Your task to perform on an android device: Do I have any events tomorrow? Image 0: 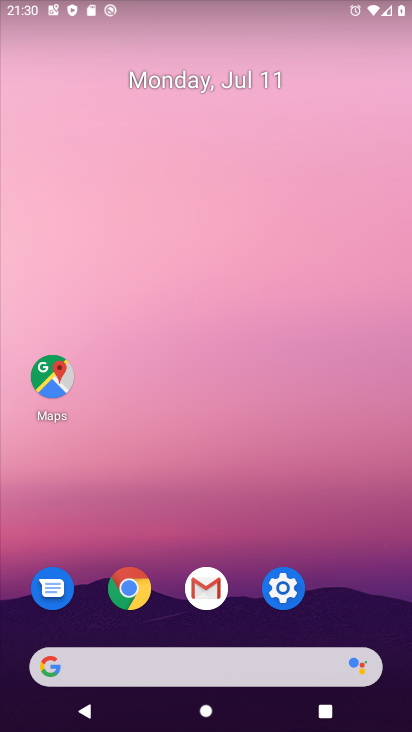
Step 0: click (169, 667)
Your task to perform on an android device: Do I have any events tomorrow? Image 1: 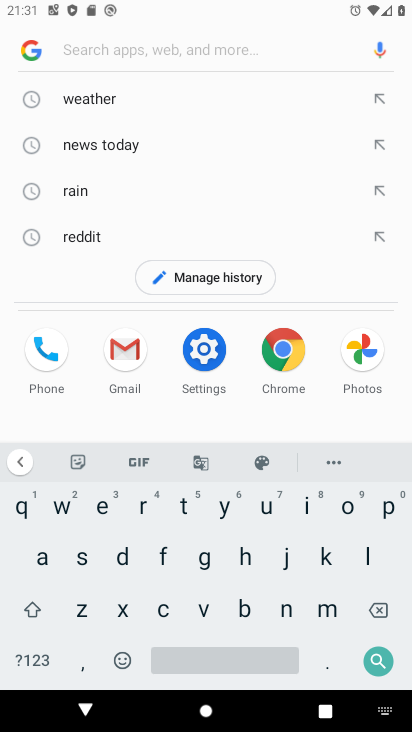
Step 1: press home button
Your task to perform on an android device: Do I have any events tomorrow? Image 2: 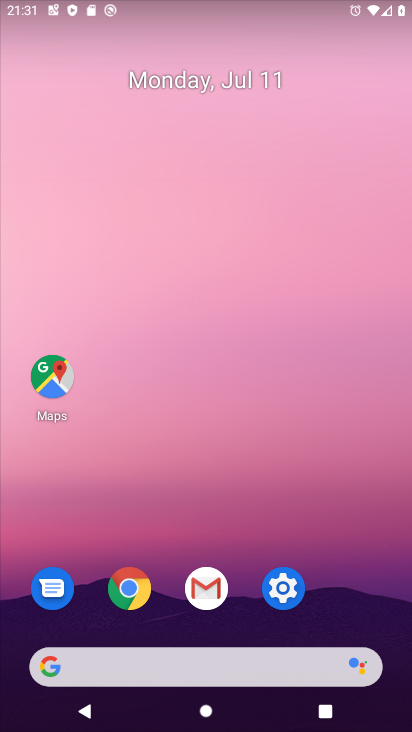
Step 2: drag from (246, 675) to (172, 99)
Your task to perform on an android device: Do I have any events tomorrow? Image 3: 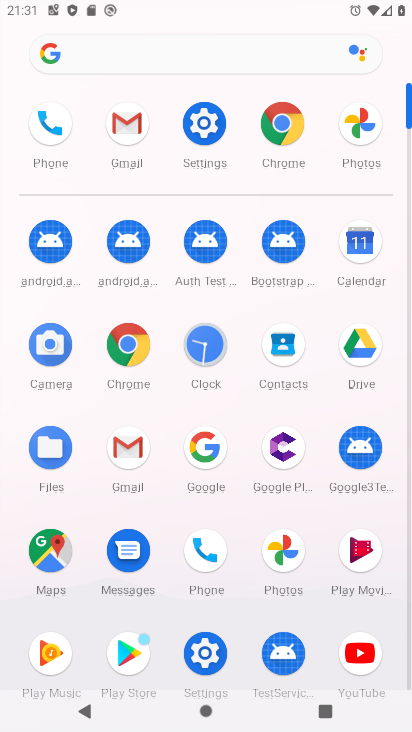
Step 3: click (363, 256)
Your task to perform on an android device: Do I have any events tomorrow? Image 4: 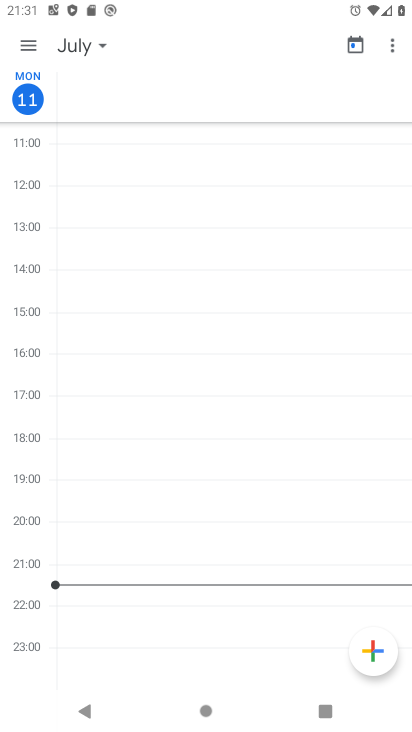
Step 4: click (24, 37)
Your task to perform on an android device: Do I have any events tomorrow? Image 5: 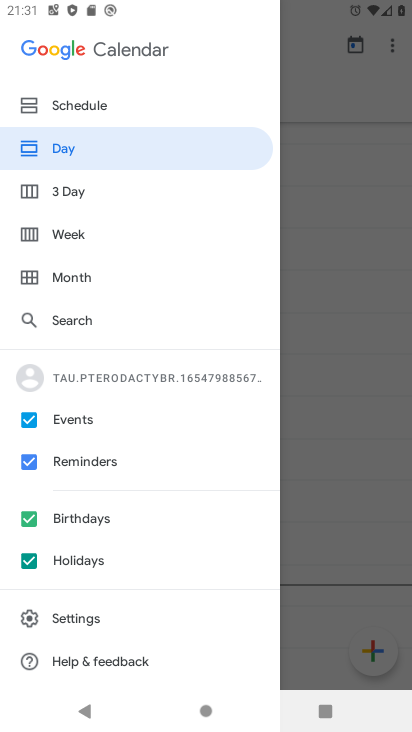
Step 5: click (93, 108)
Your task to perform on an android device: Do I have any events tomorrow? Image 6: 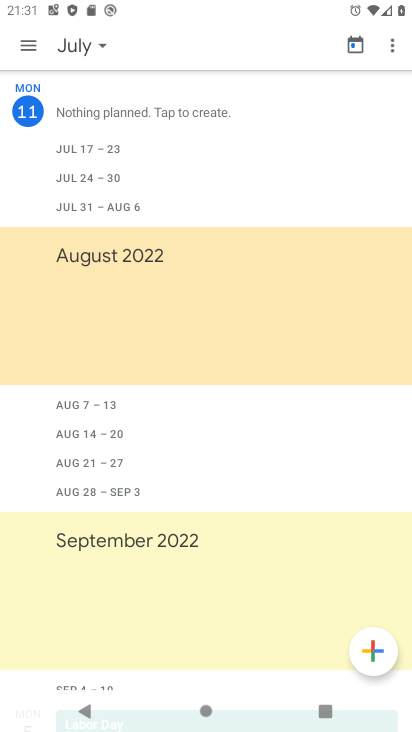
Step 6: task complete